Your task to perform on an android device: Go to wifi settings Image 0: 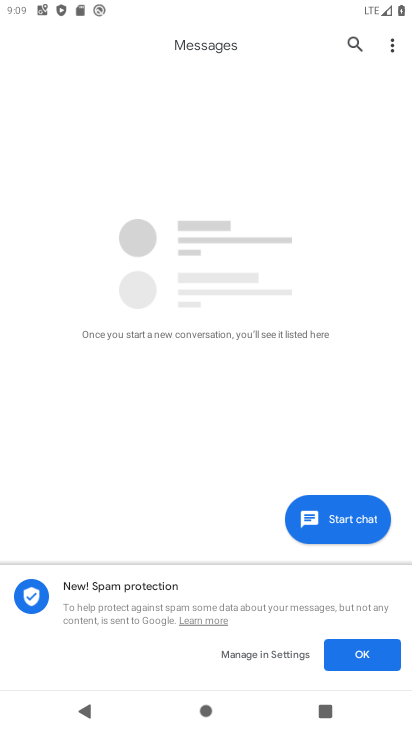
Step 0: press home button
Your task to perform on an android device: Go to wifi settings Image 1: 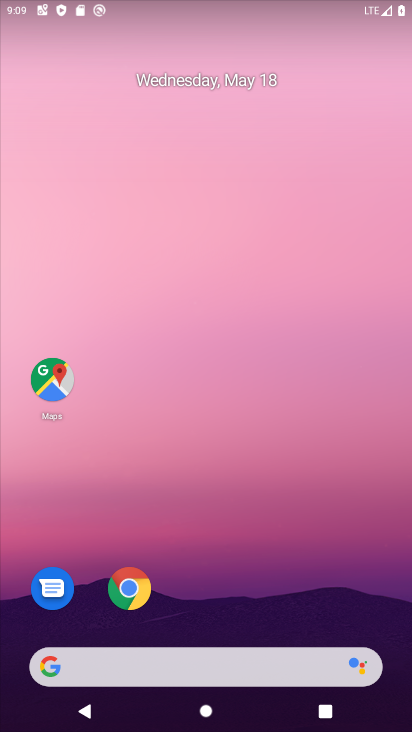
Step 1: drag from (344, 606) to (230, 0)
Your task to perform on an android device: Go to wifi settings Image 2: 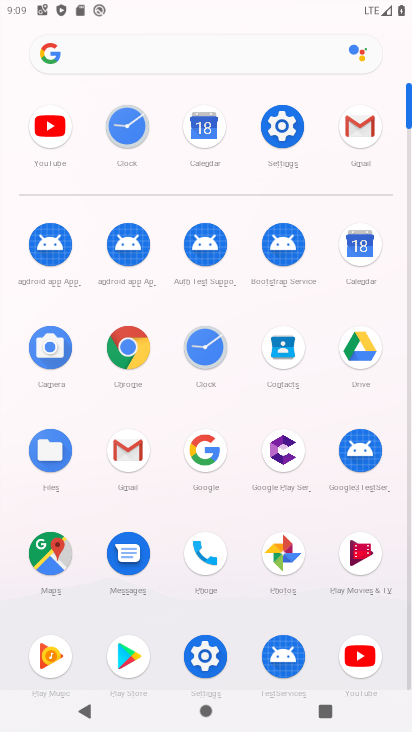
Step 2: click (281, 137)
Your task to perform on an android device: Go to wifi settings Image 3: 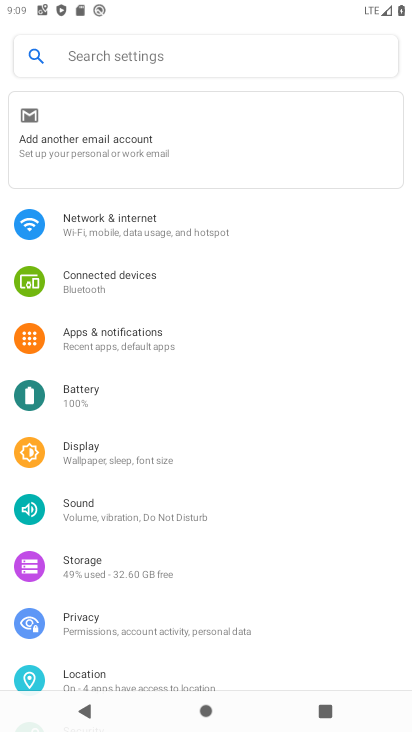
Step 3: click (110, 229)
Your task to perform on an android device: Go to wifi settings Image 4: 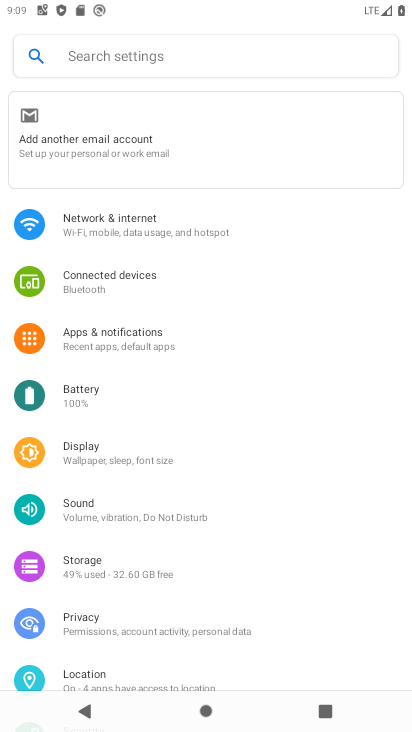
Step 4: click (143, 228)
Your task to perform on an android device: Go to wifi settings Image 5: 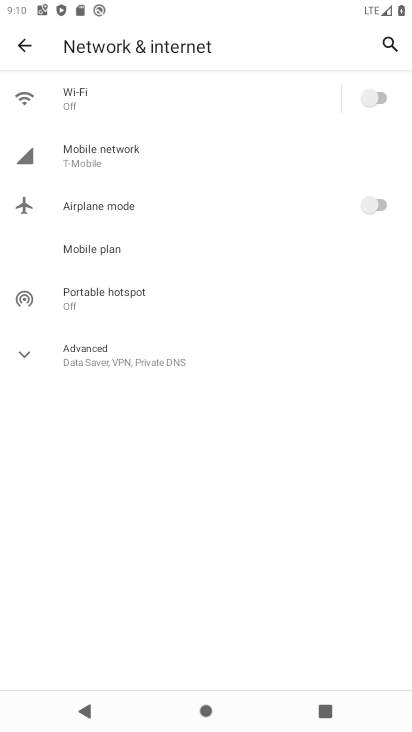
Step 5: click (72, 90)
Your task to perform on an android device: Go to wifi settings Image 6: 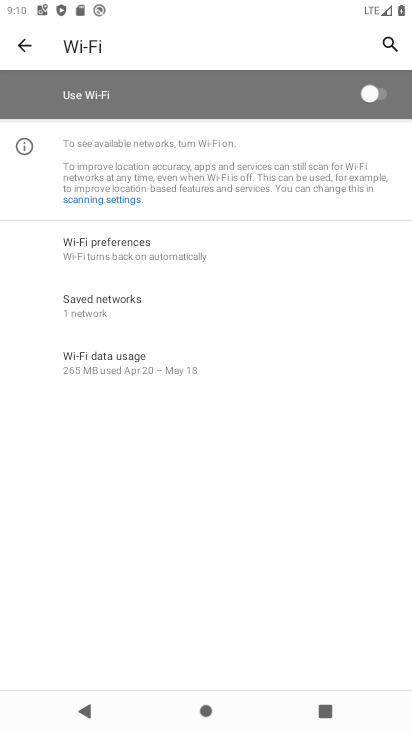
Step 6: task complete